Your task to perform on an android device: Open CNN.com Image 0: 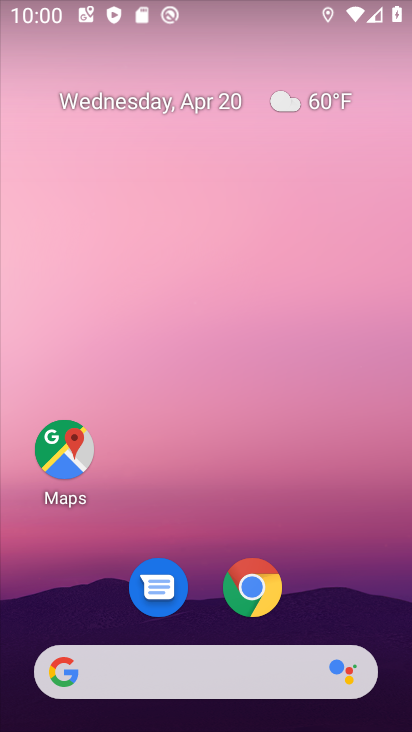
Step 0: click (252, 600)
Your task to perform on an android device: Open CNN.com Image 1: 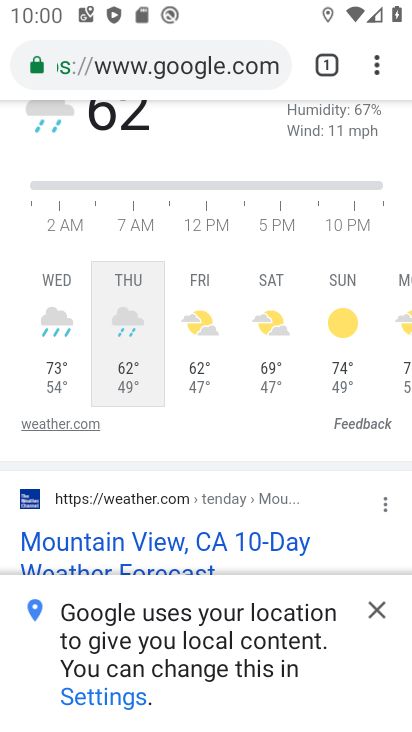
Step 1: click (328, 64)
Your task to perform on an android device: Open CNN.com Image 2: 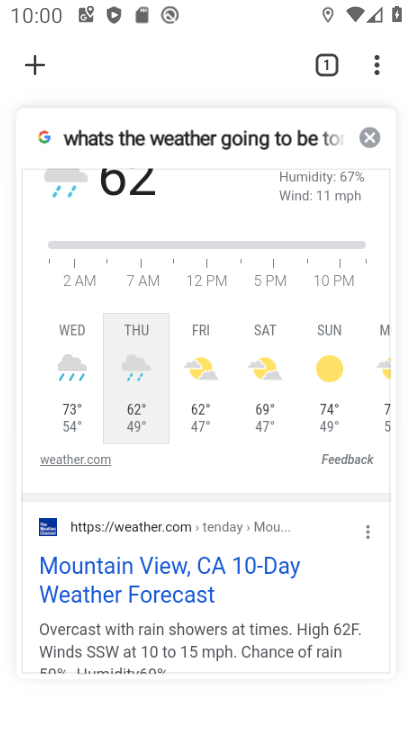
Step 2: click (29, 68)
Your task to perform on an android device: Open CNN.com Image 3: 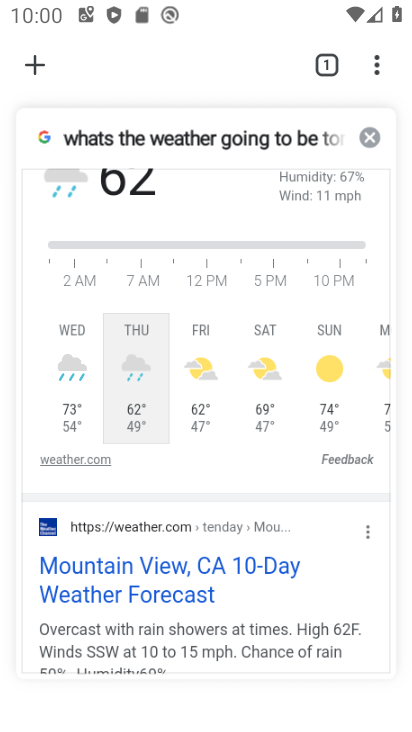
Step 3: click (38, 66)
Your task to perform on an android device: Open CNN.com Image 4: 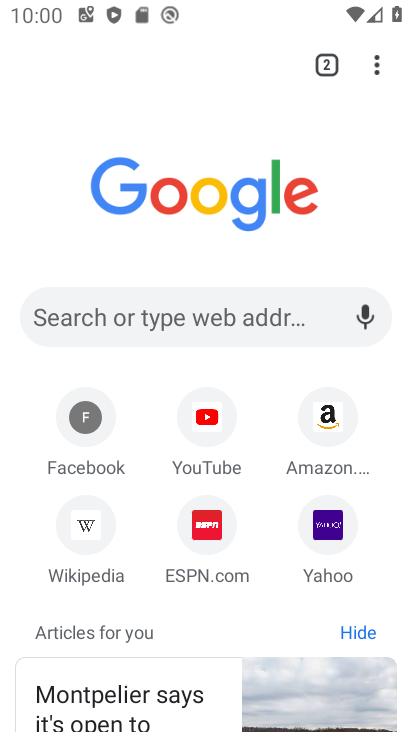
Step 4: click (133, 316)
Your task to perform on an android device: Open CNN.com Image 5: 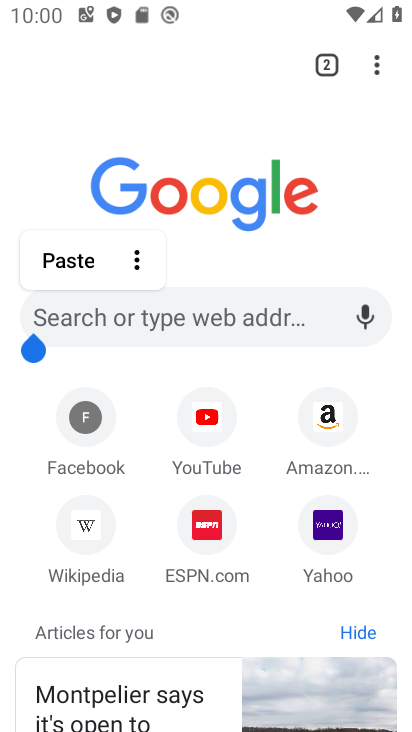
Step 5: click (137, 316)
Your task to perform on an android device: Open CNN.com Image 6: 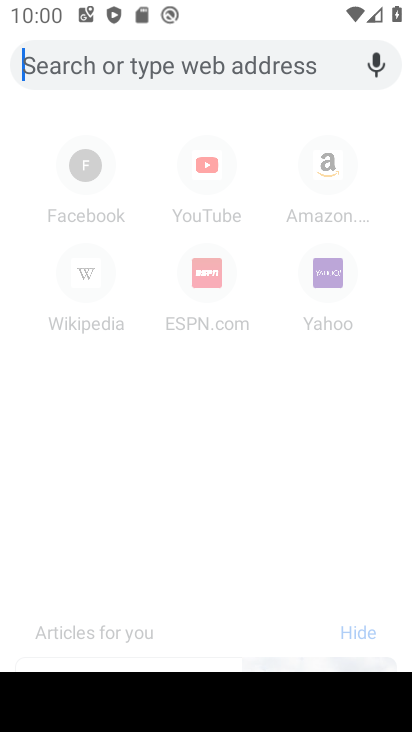
Step 6: type "cnn.com"
Your task to perform on an android device: Open CNN.com Image 7: 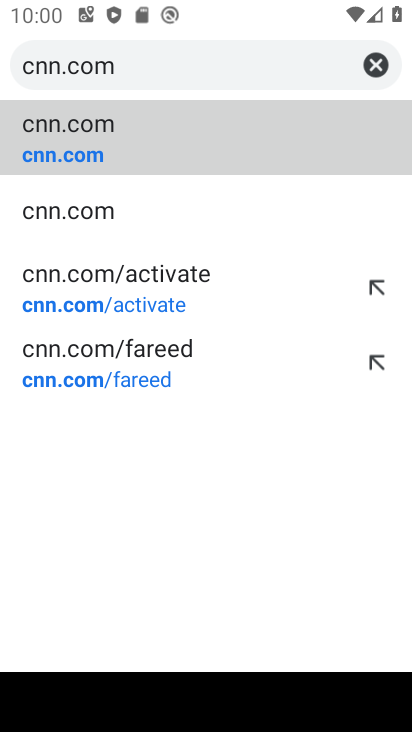
Step 7: click (36, 148)
Your task to perform on an android device: Open CNN.com Image 8: 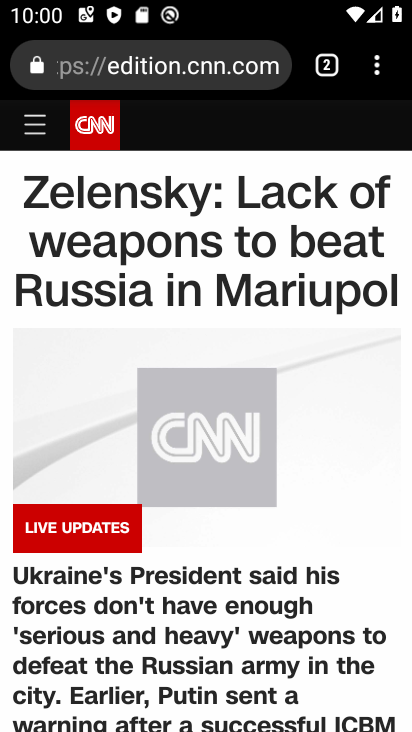
Step 8: task complete